Your task to perform on an android device: What is the news today? Image 0: 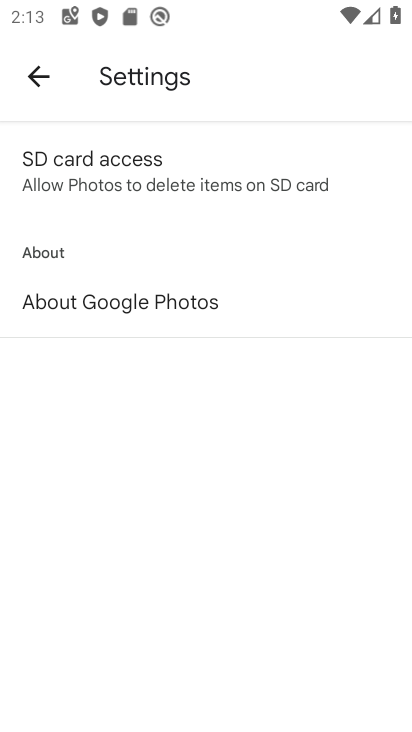
Step 0: press home button
Your task to perform on an android device: What is the news today? Image 1: 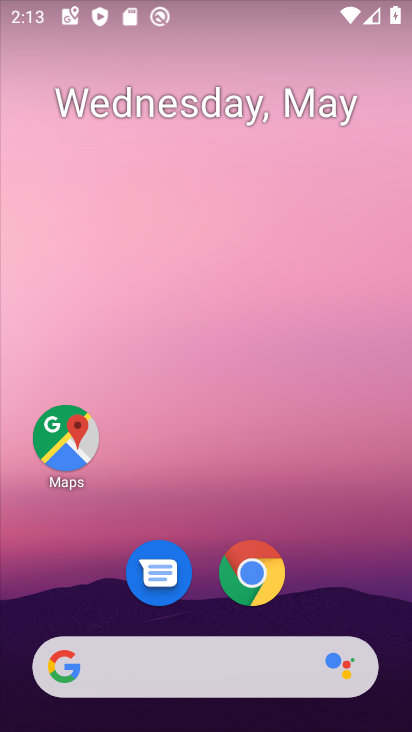
Step 1: click (173, 658)
Your task to perform on an android device: What is the news today? Image 2: 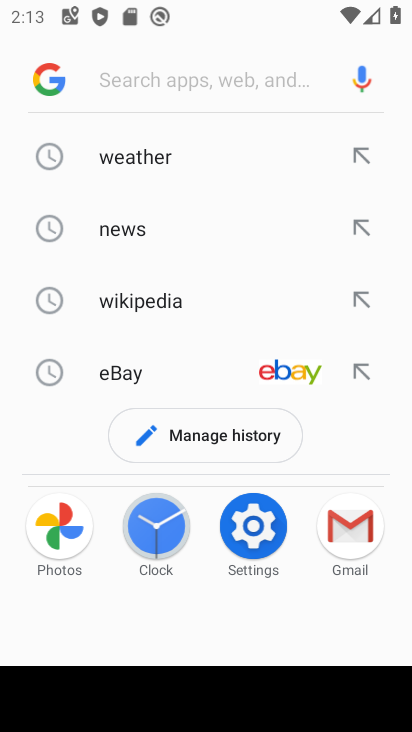
Step 2: type "what is the news today"
Your task to perform on an android device: What is the news today? Image 3: 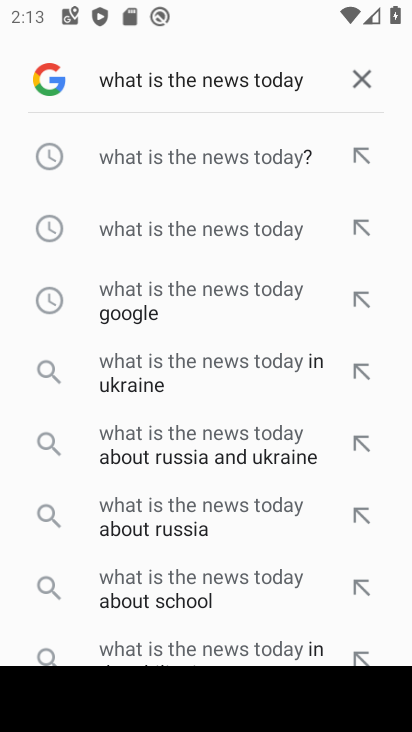
Step 3: click (157, 162)
Your task to perform on an android device: What is the news today? Image 4: 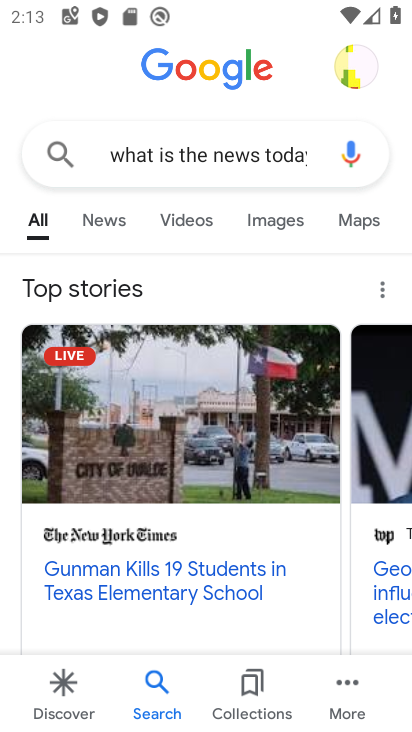
Step 4: click (118, 217)
Your task to perform on an android device: What is the news today? Image 5: 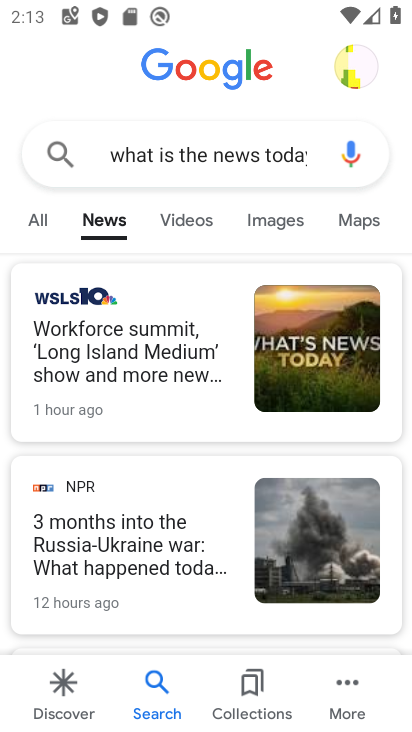
Step 5: task complete